Your task to perform on an android device: When is my next meeting? Image 0: 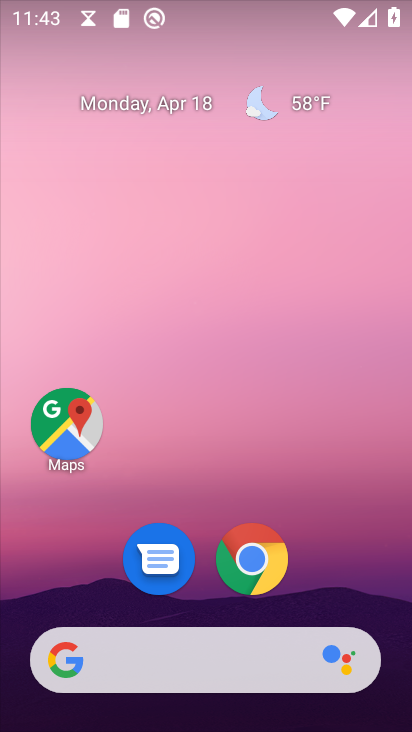
Step 0: drag from (335, 583) to (307, 114)
Your task to perform on an android device: When is my next meeting? Image 1: 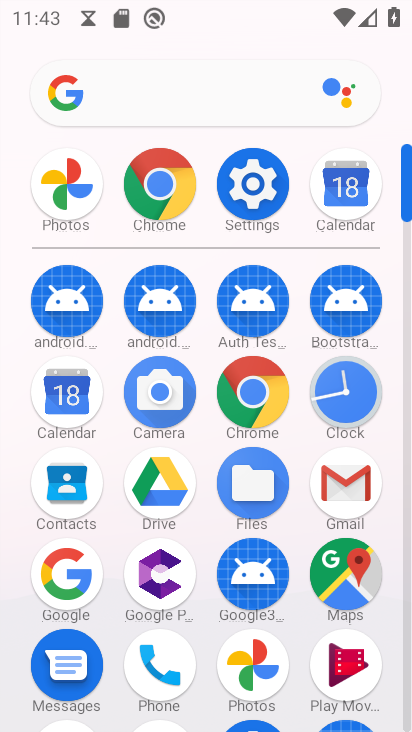
Step 1: click (52, 408)
Your task to perform on an android device: When is my next meeting? Image 2: 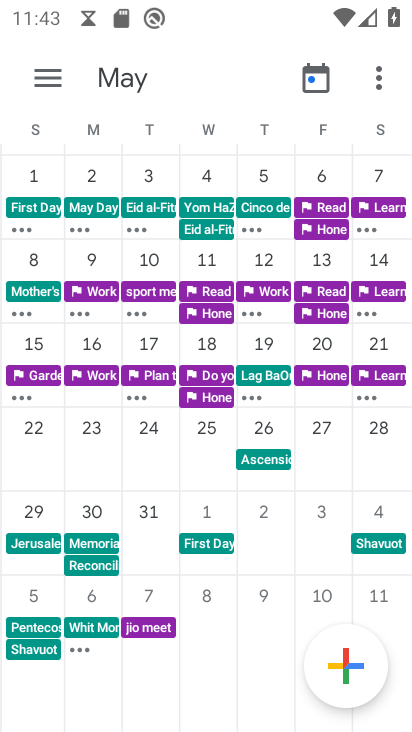
Step 2: drag from (20, 437) to (76, 416)
Your task to perform on an android device: When is my next meeting? Image 3: 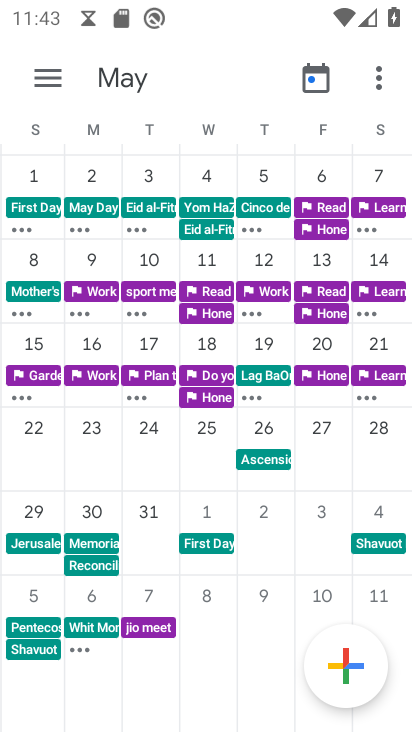
Step 3: drag from (10, 376) to (217, 367)
Your task to perform on an android device: When is my next meeting? Image 4: 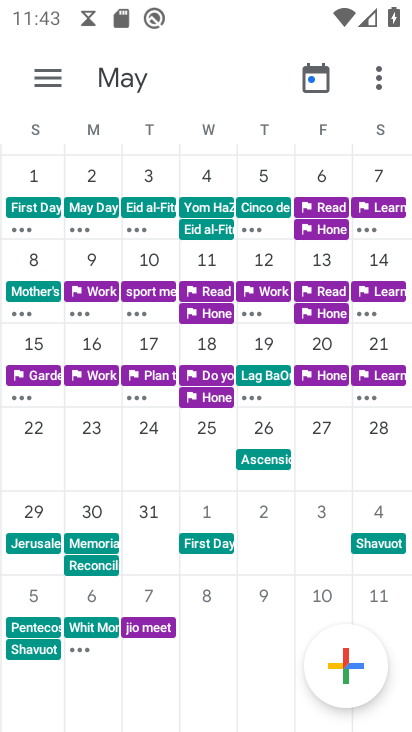
Step 4: drag from (171, 216) to (295, 216)
Your task to perform on an android device: When is my next meeting? Image 5: 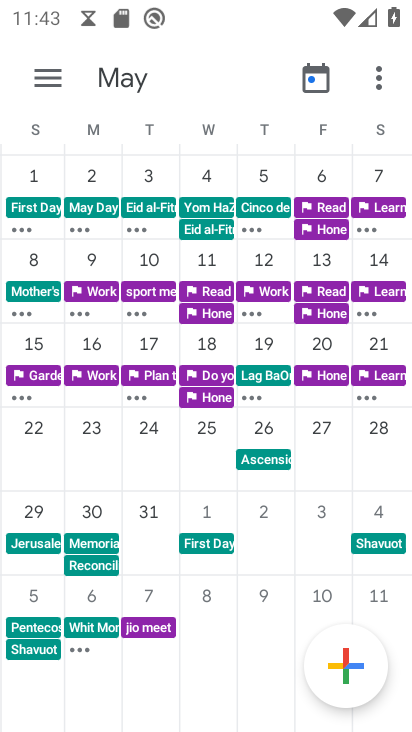
Step 5: drag from (42, 200) to (409, 202)
Your task to perform on an android device: When is my next meeting? Image 6: 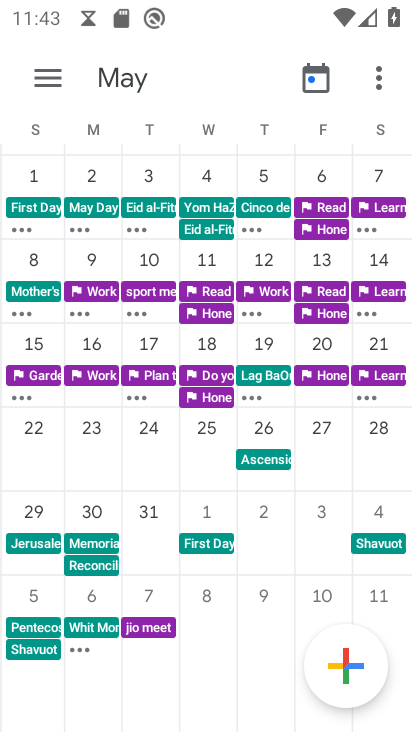
Step 6: drag from (23, 445) to (372, 472)
Your task to perform on an android device: When is my next meeting? Image 7: 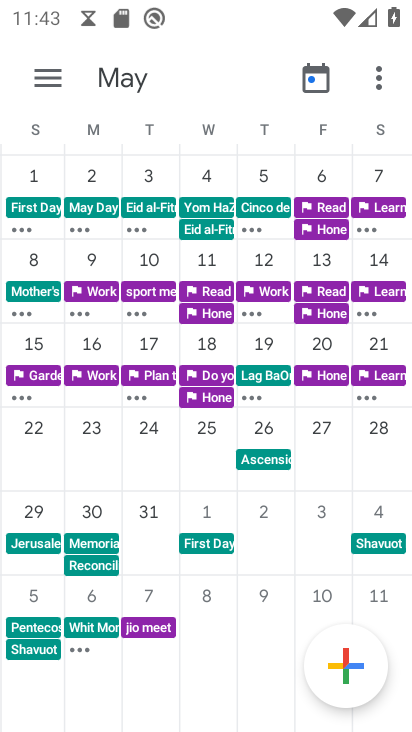
Step 7: click (44, 82)
Your task to perform on an android device: When is my next meeting? Image 8: 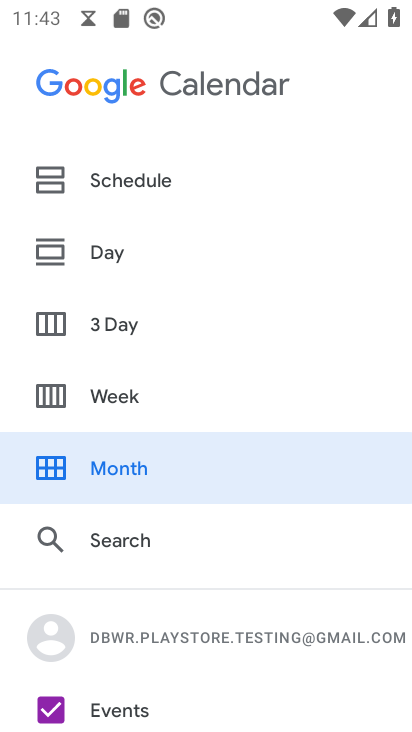
Step 8: click (122, 477)
Your task to perform on an android device: When is my next meeting? Image 9: 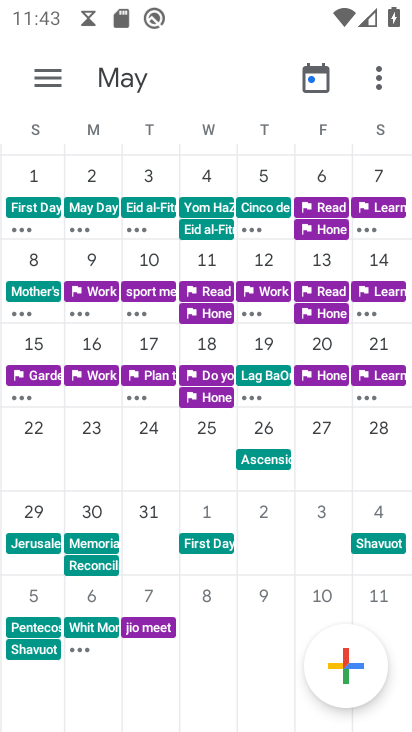
Step 9: drag from (75, 233) to (394, 449)
Your task to perform on an android device: When is my next meeting? Image 10: 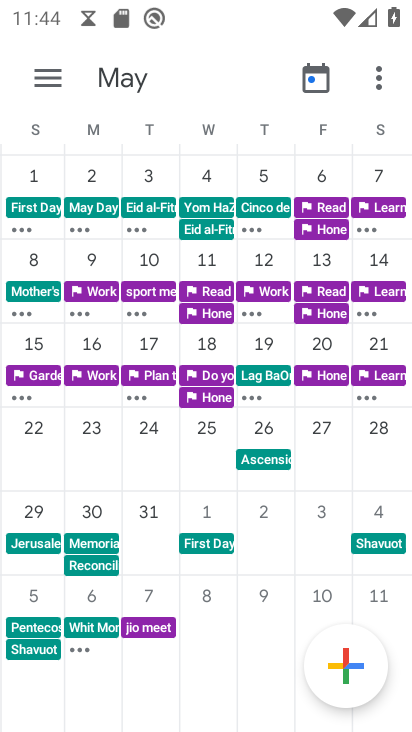
Step 10: drag from (25, 283) to (388, 310)
Your task to perform on an android device: When is my next meeting? Image 11: 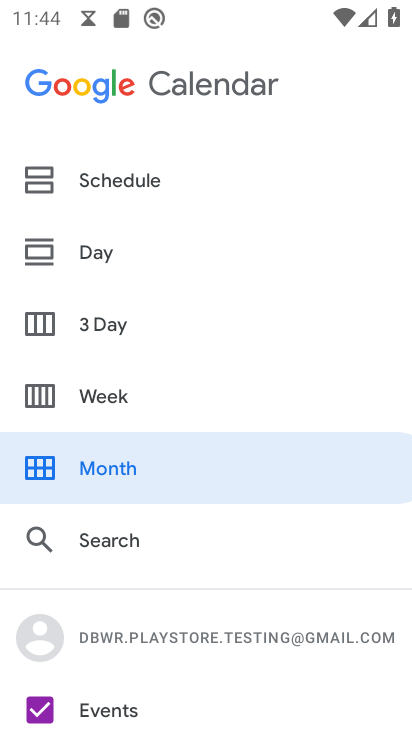
Step 11: click (37, 180)
Your task to perform on an android device: When is my next meeting? Image 12: 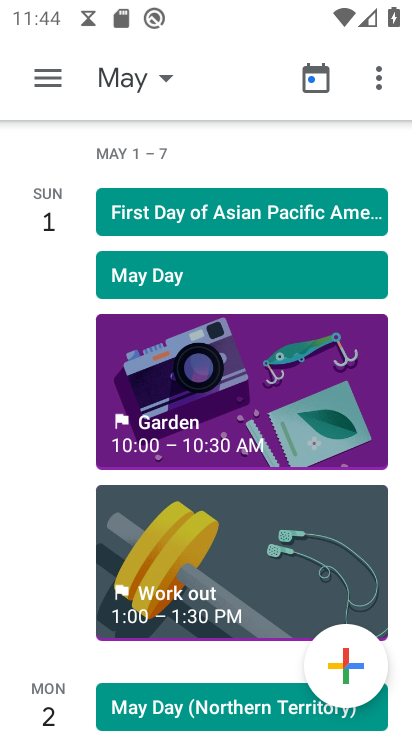
Step 12: click (146, 80)
Your task to perform on an android device: When is my next meeting? Image 13: 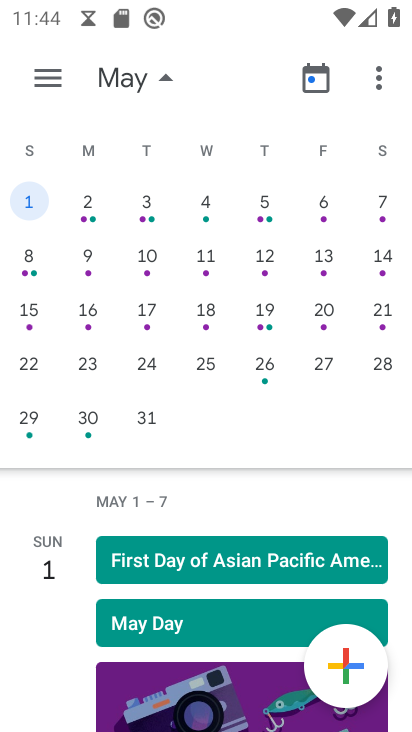
Step 13: drag from (50, 312) to (406, 327)
Your task to perform on an android device: When is my next meeting? Image 14: 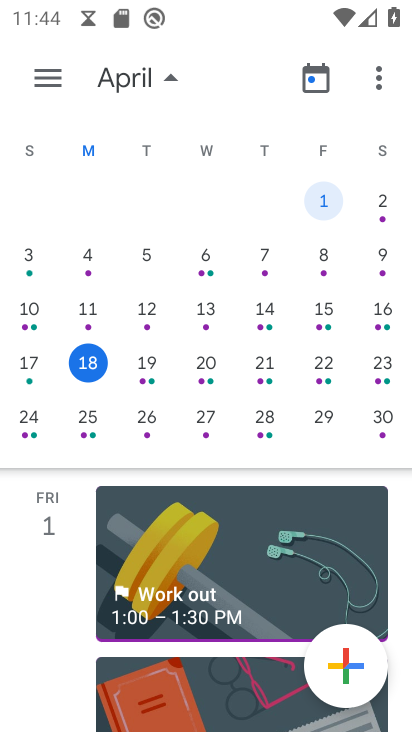
Step 14: click (47, 80)
Your task to perform on an android device: When is my next meeting? Image 15: 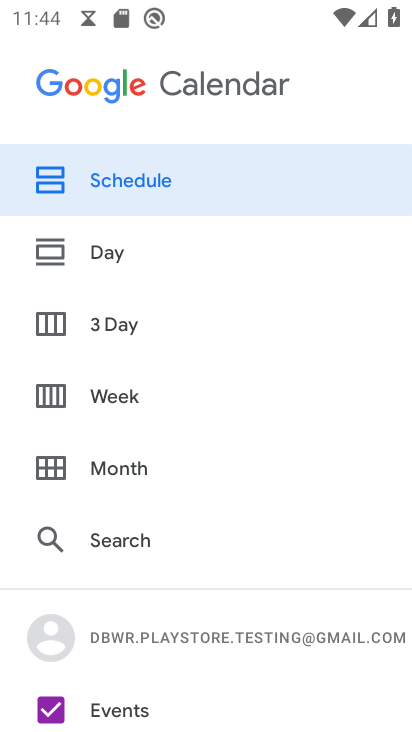
Step 15: click (134, 180)
Your task to perform on an android device: When is my next meeting? Image 16: 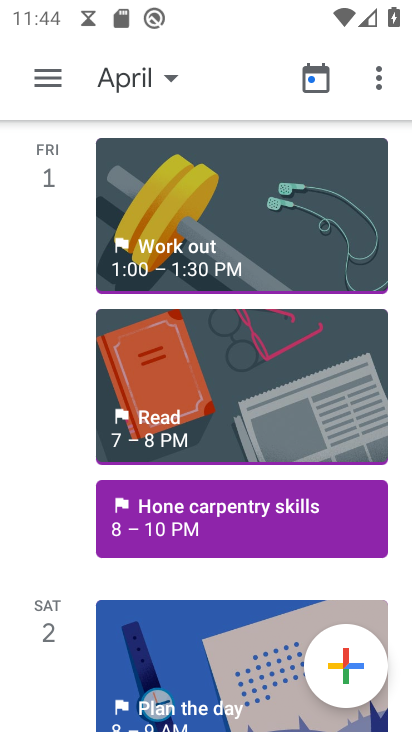
Step 16: click (134, 73)
Your task to perform on an android device: When is my next meeting? Image 17: 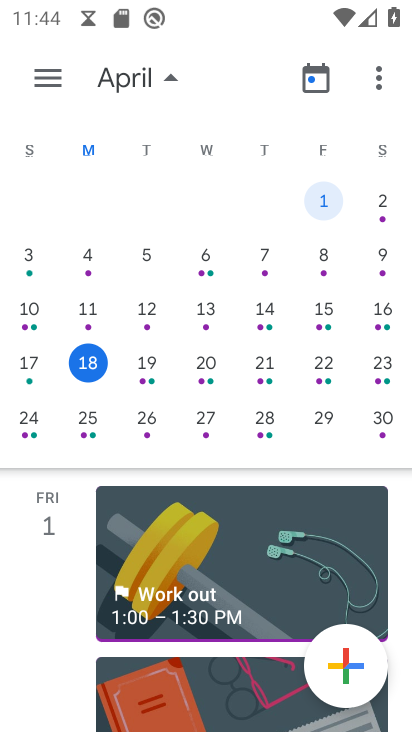
Step 17: click (85, 360)
Your task to perform on an android device: When is my next meeting? Image 18: 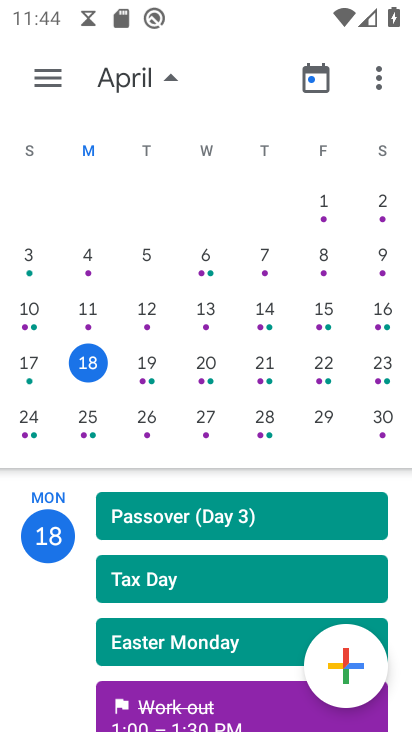
Step 18: task complete